Your task to perform on an android device: What's on my calendar tomorrow? Image 0: 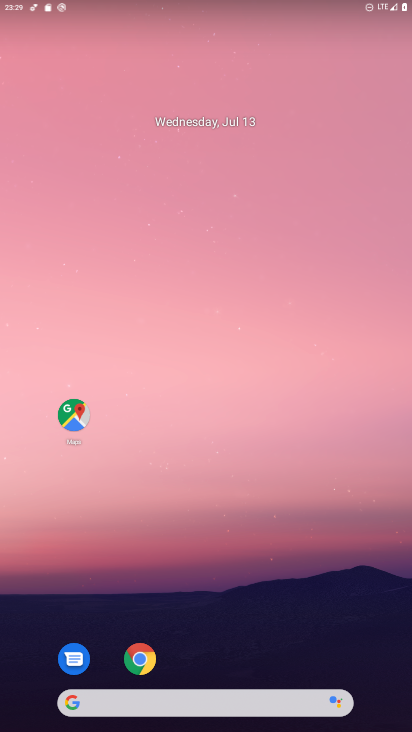
Step 0: drag from (380, 655) to (313, 132)
Your task to perform on an android device: What's on my calendar tomorrow? Image 1: 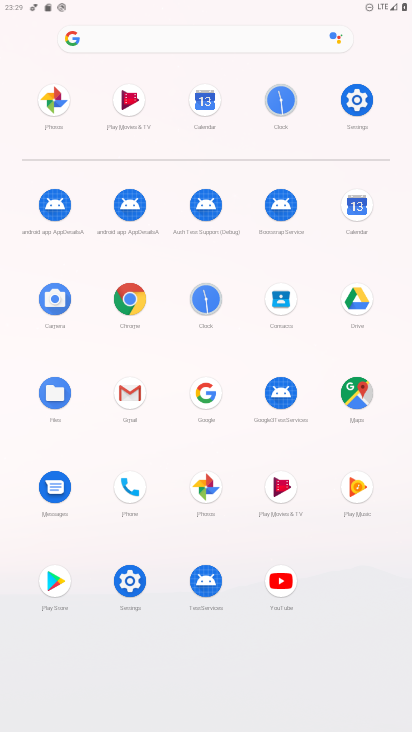
Step 1: click (357, 204)
Your task to perform on an android device: What's on my calendar tomorrow? Image 2: 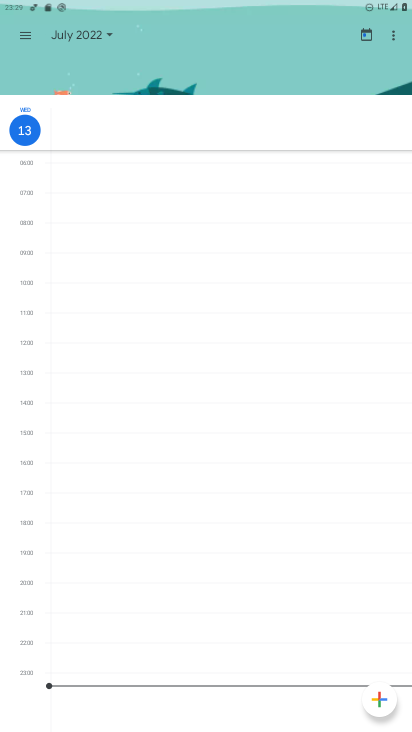
Step 2: click (99, 36)
Your task to perform on an android device: What's on my calendar tomorrow? Image 3: 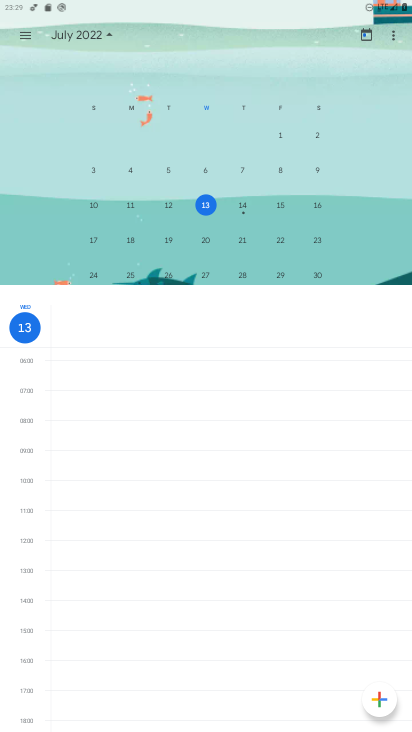
Step 3: click (242, 208)
Your task to perform on an android device: What's on my calendar tomorrow? Image 4: 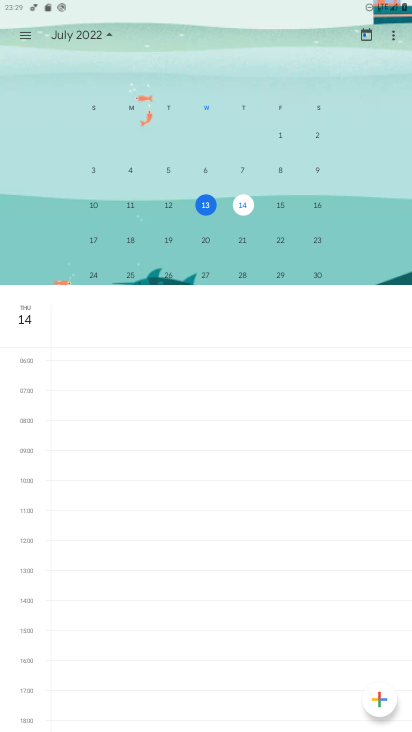
Step 4: task complete